Your task to perform on an android device: Open network settings Image 0: 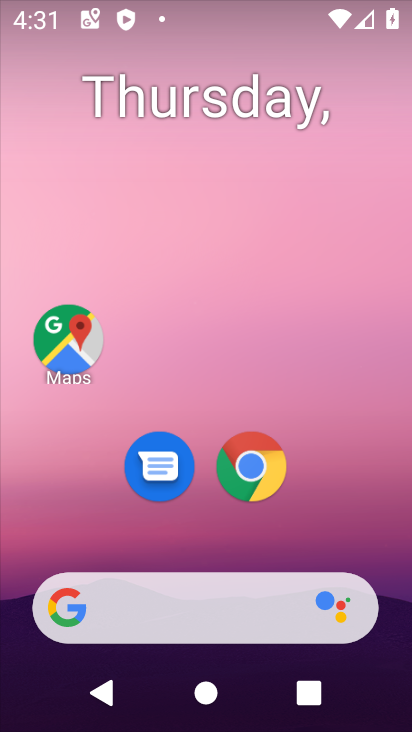
Step 0: drag from (208, 539) to (240, 0)
Your task to perform on an android device: Open network settings Image 1: 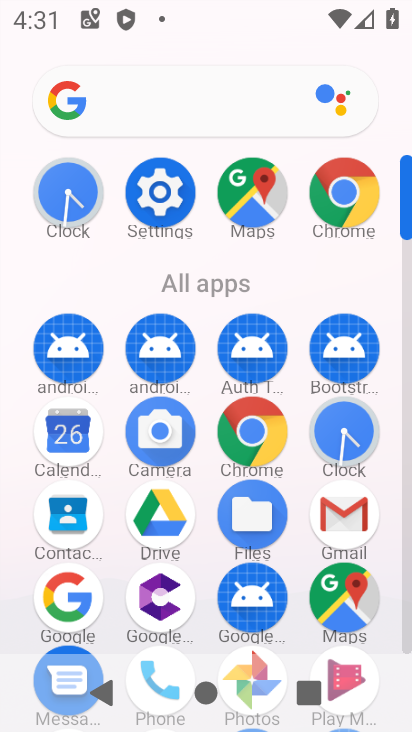
Step 1: click (152, 179)
Your task to perform on an android device: Open network settings Image 2: 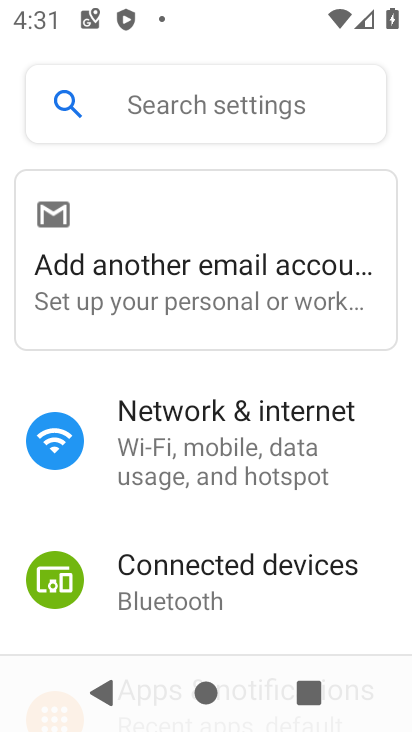
Step 2: click (202, 459)
Your task to perform on an android device: Open network settings Image 3: 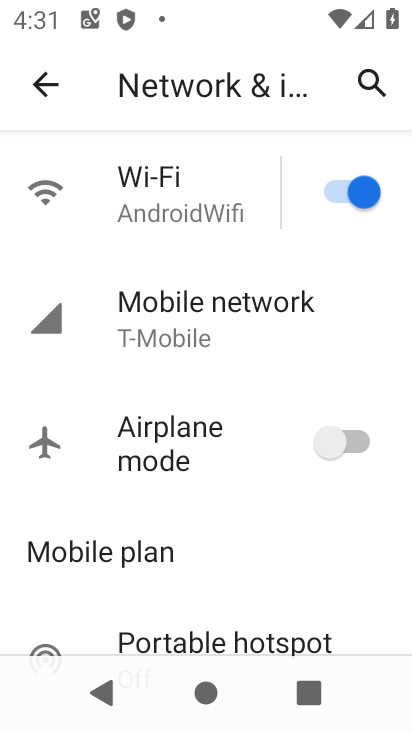
Step 3: drag from (208, 606) to (213, 194)
Your task to perform on an android device: Open network settings Image 4: 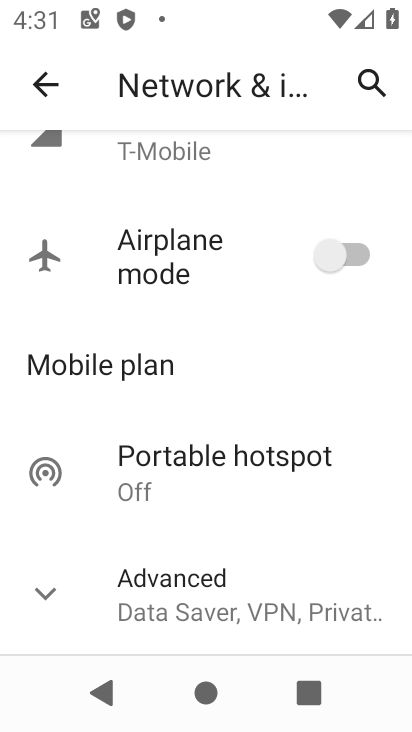
Step 4: click (41, 590)
Your task to perform on an android device: Open network settings Image 5: 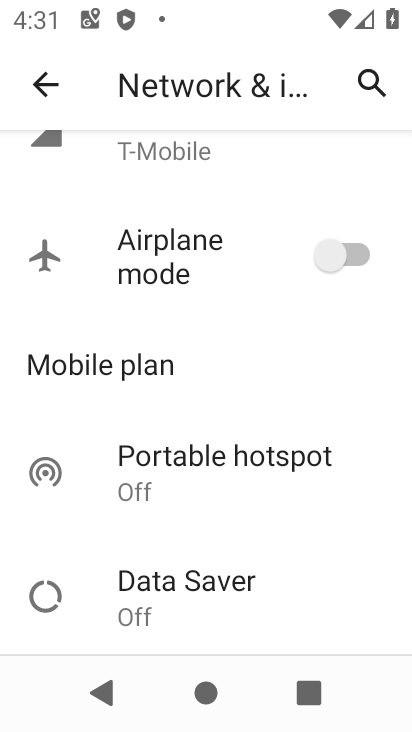
Step 5: task complete